Your task to perform on an android device: What's the weather going to be this weekend? Image 0: 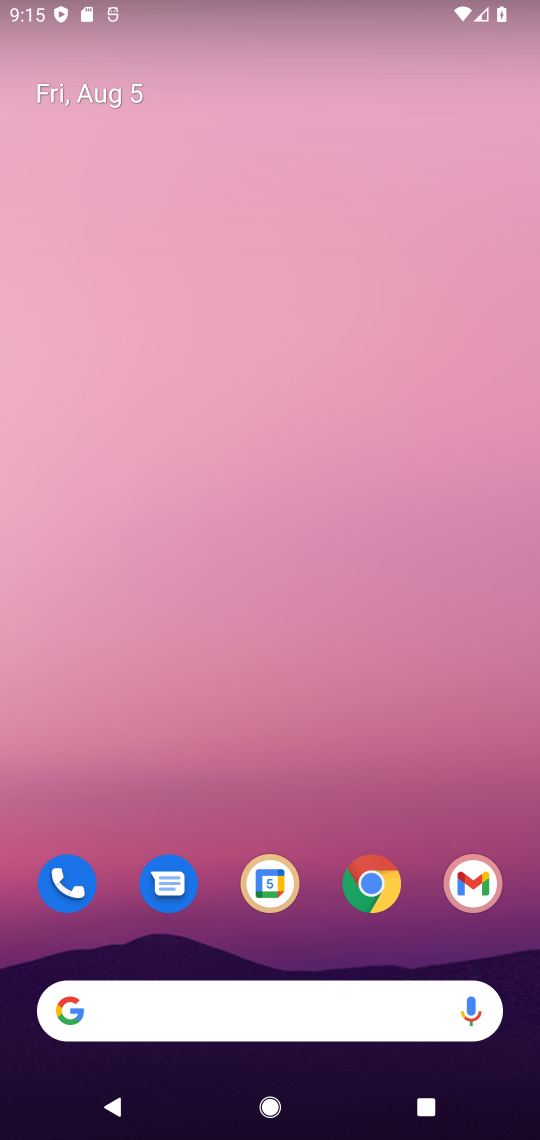
Step 0: click (198, 1000)
Your task to perform on an android device: What's the weather going to be this weekend? Image 1: 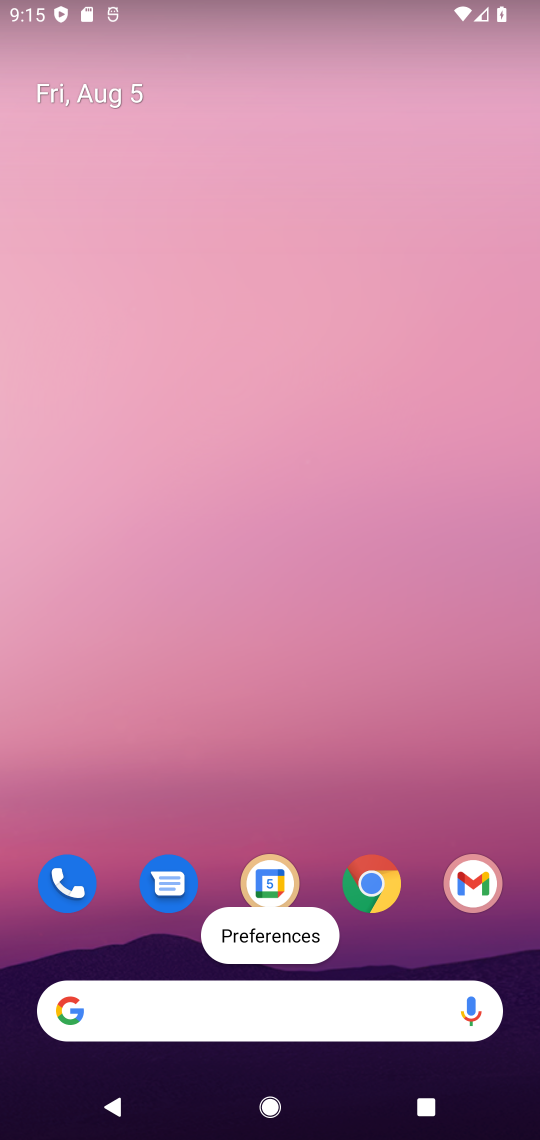
Step 1: click (216, 1006)
Your task to perform on an android device: What's the weather going to be this weekend? Image 2: 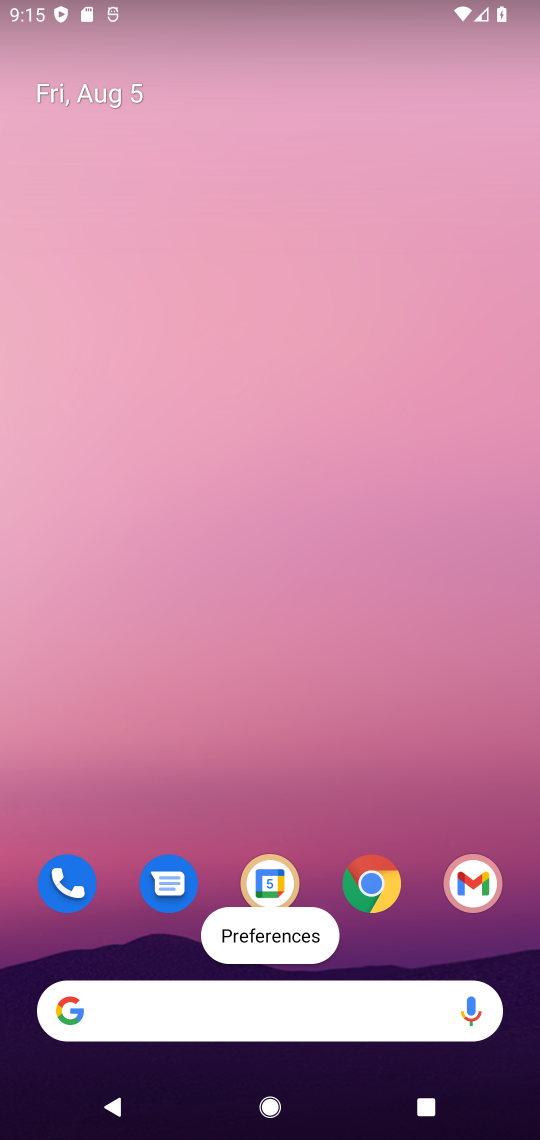
Step 2: click (233, 1031)
Your task to perform on an android device: What's the weather going to be this weekend? Image 3: 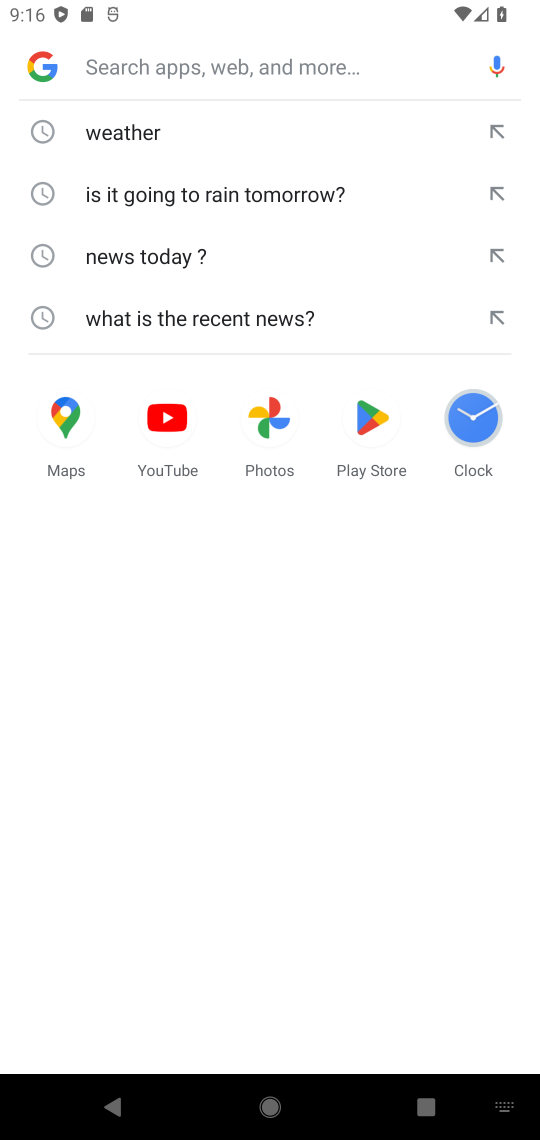
Step 3: click (108, 138)
Your task to perform on an android device: What's the weather going to be this weekend? Image 4: 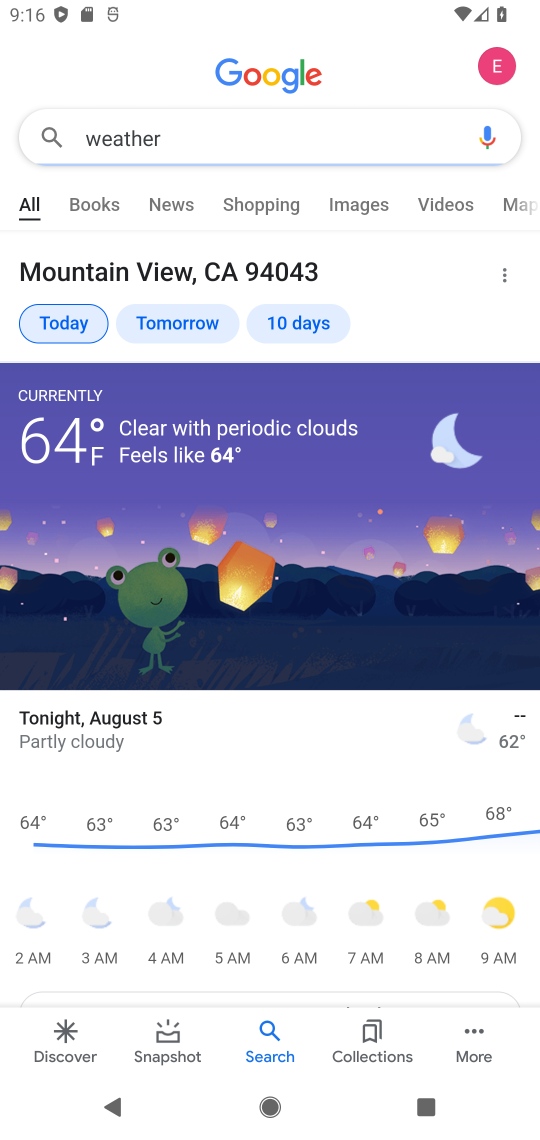
Step 4: click (297, 324)
Your task to perform on an android device: What's the weather going to be this weekend? Image 5: 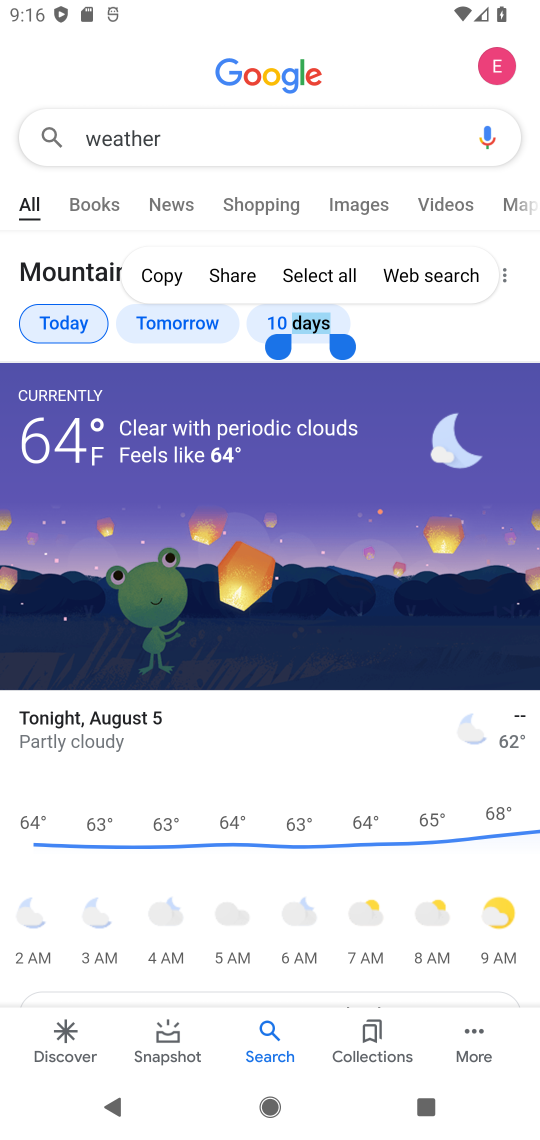
Step 5: click (465, 342)
Your task to perform on an android device: What's the weather going to be this weekend? Image 6: 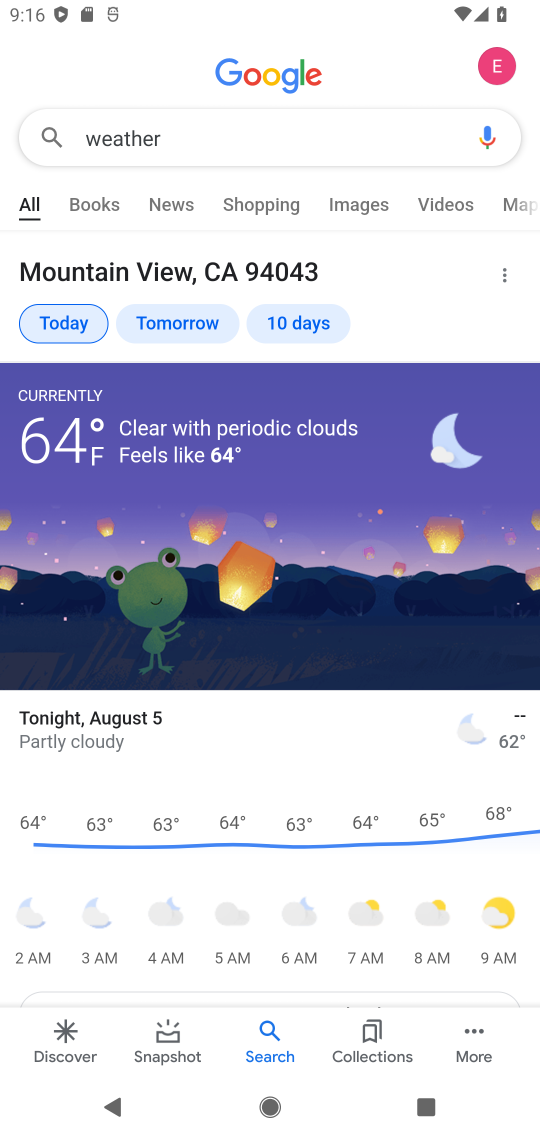
Step 6: click (285, 314)
Your task to perform on an android device: What's the weather going to be this weekend? Image 7: 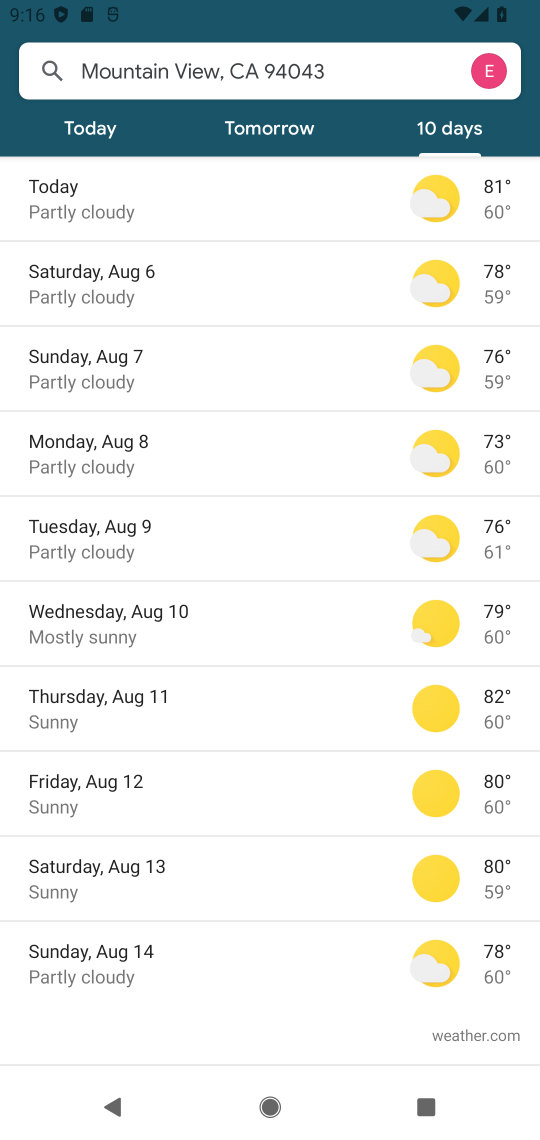
Step 7: task complete